Your task to perform on an android device: turn on priority inbox in the gmail app Image 0: 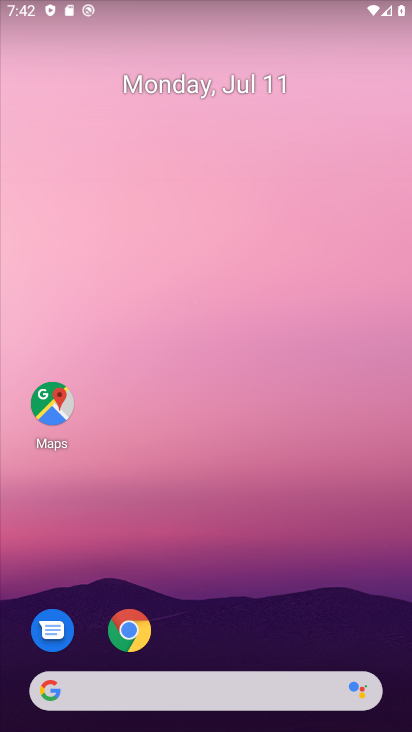
Step 0: press home button
Your task to perform on an android device: turn on priority inbox in the gmail app Image 1: 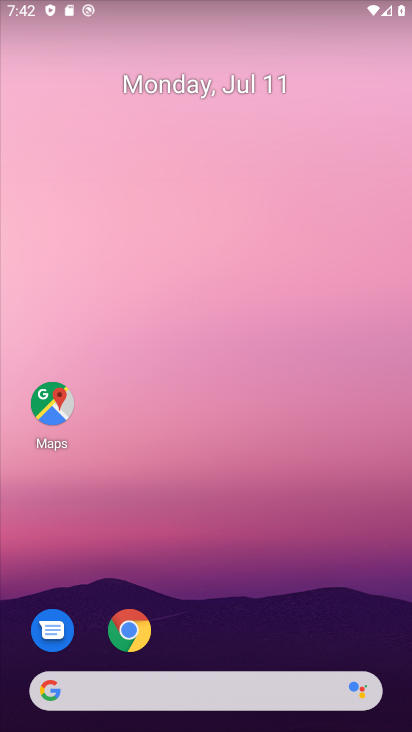
Step 1: drag from (220, 648) to (276, 100)
Your task to perform on an android device: turn on priority inbox in the gmail app Image 2: 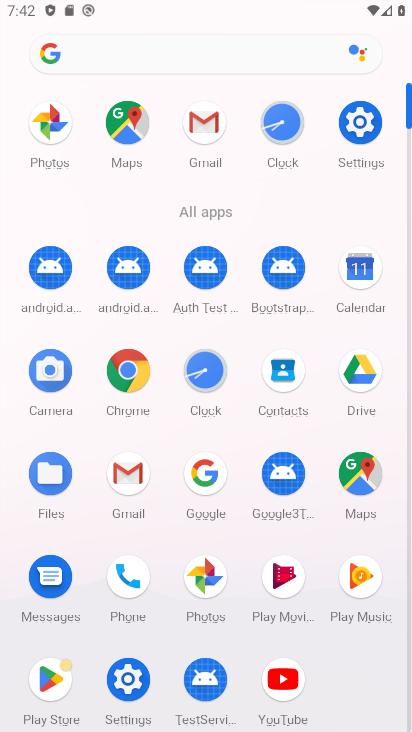
Step 2: click (199, 112)
Your task to perform on an android device: turn on priority inbox in the gmail app Image 3: 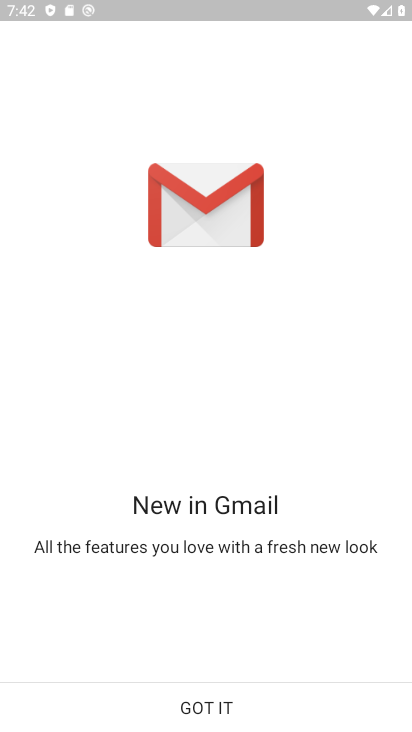
Step 3: click (203, 704)
Your task to perform on an android device: turn on priority inbox in the gmail app Image 4: 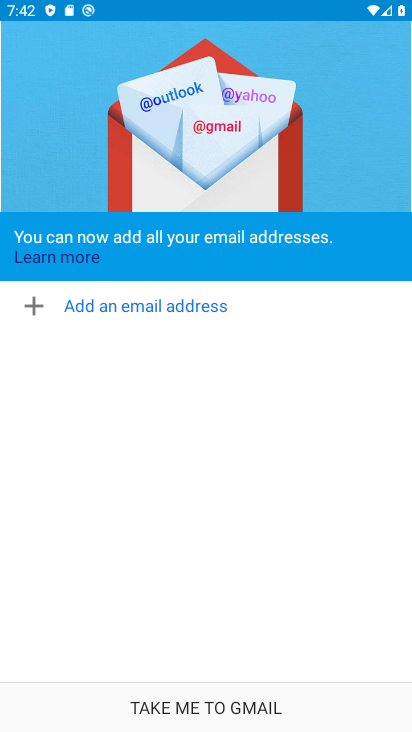
Step 4: click (201, 708)
Your task to perform on an android device: turn on priority inbox in the gmail app Image 5: 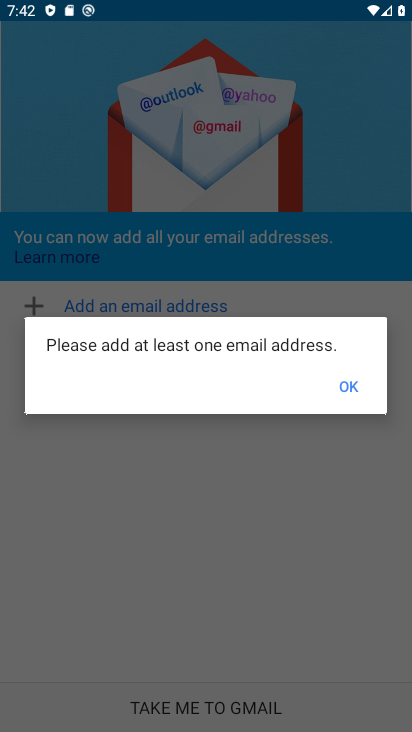
Step 5: click (346, 389)
Your task to perform on an android device: turn on priority inbox in the gmail app Image 6: 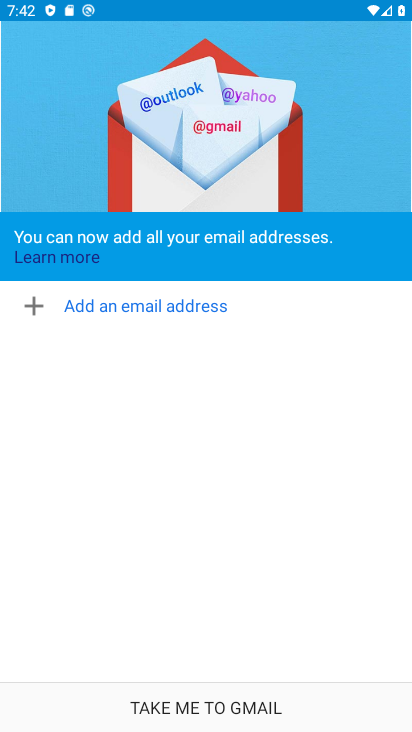
Step 6: click (197, 716)
Your task to perform on an android device: turn on priority inbox in the gmail app Image 7: 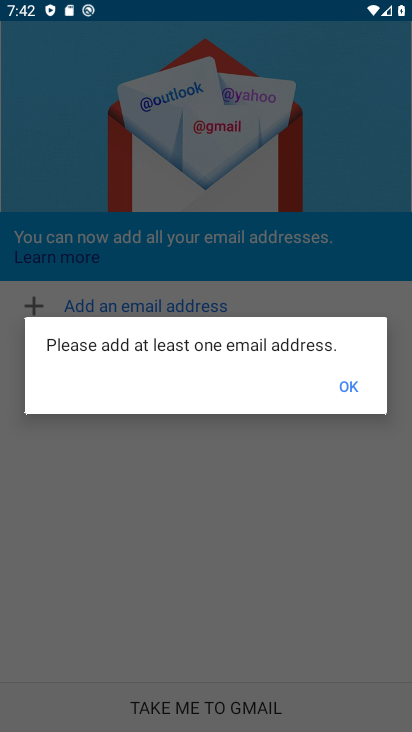
Step 7: click (343, 379)
Your task to perform on an android device: turn on priority inbox in the gmail app Image 8: 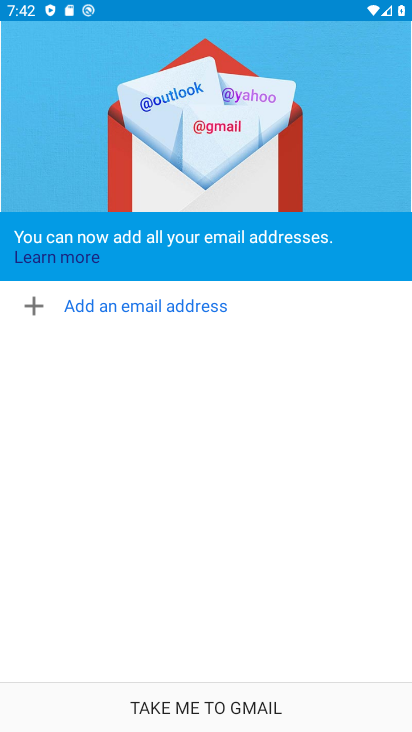
Step 8: click (202, 716)
Your task to perform on an android device: turn on priority inbox in the gmail app Image 9: 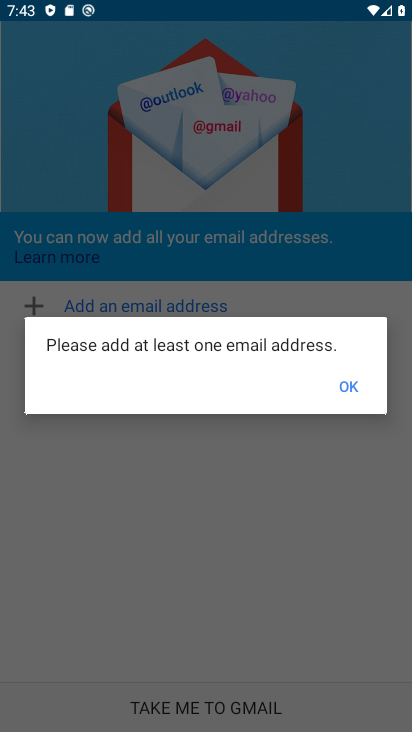
Step 9: task complete